Your task to perform on an android device: Search for sushi restaurants on Maps Image 0: 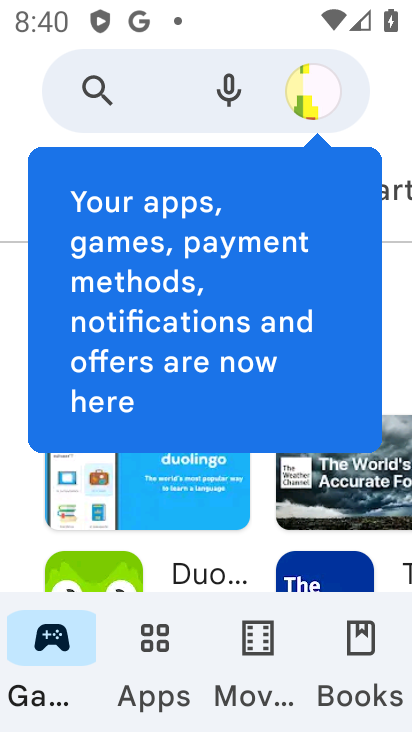
Step 0: press home button
Your task to perform on an android device: Search for sushi restaurants on Maps Image 1: 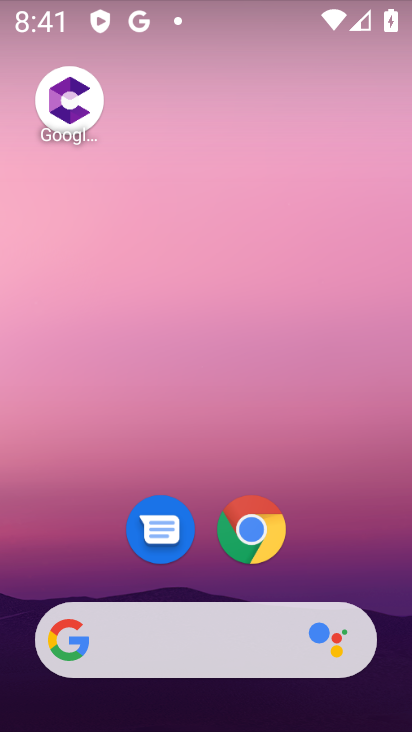
Step 1: drag from (306, 589) to (279, 274)
Your task to perform on an android device: Search for sushi restaurants on Maps Image 2: 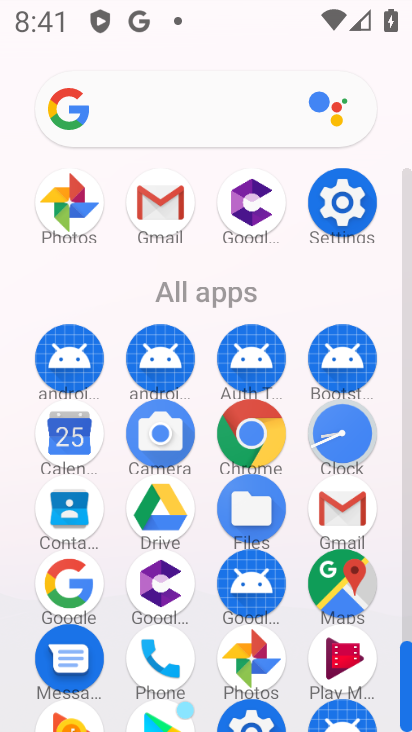
Step 2: click (339, 570)
Your task to perform on an android device: Search for sushi restaurants on Maps Image 3: 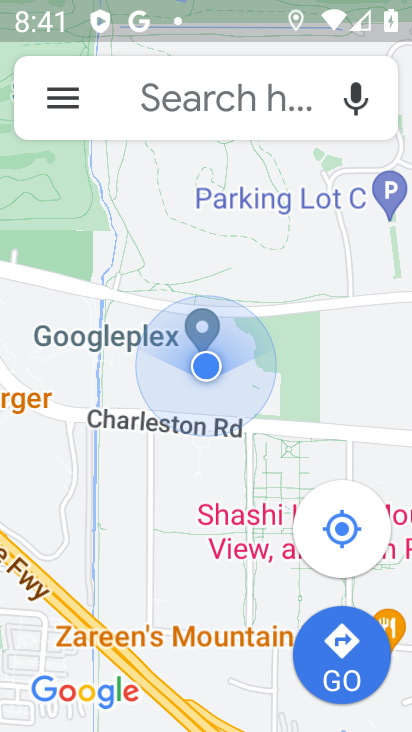
Step 3: click (169, 105)
Your task to perform on an android device: Search for sushi restaurants on Maps Image 4: 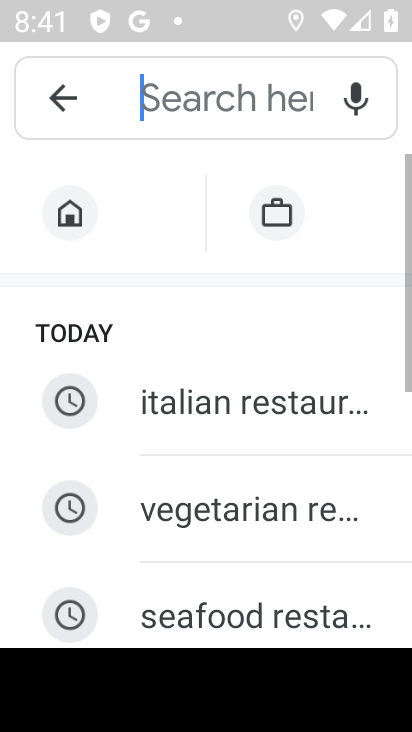
Step 4: type " sushi restaurants "
Your task to perform on an android device: Search for sushi restaurants on Maps Image 5: 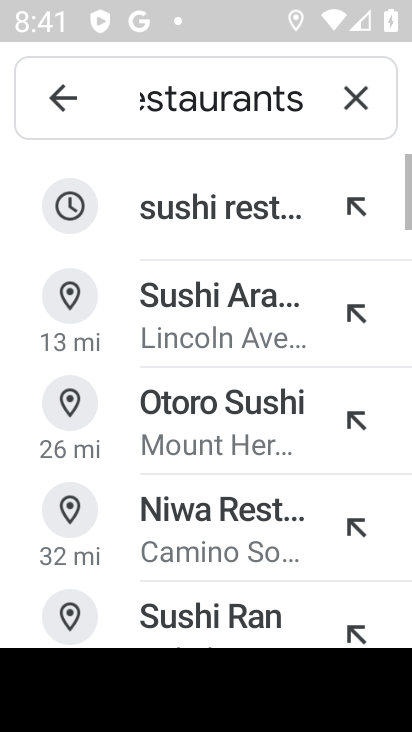
Step 5: click (230, 194)
Your task to perform on an android device: Search for sushi restaurants on Maps Image 6: 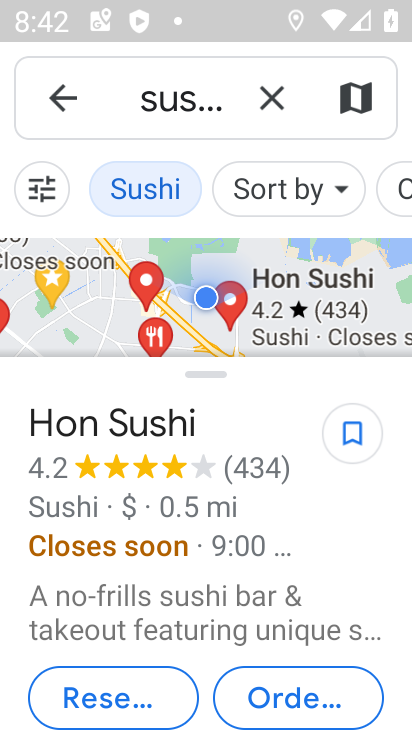
Step 6: task complete